Your task to perform on an android device: find photos in the google photos app Image 0: 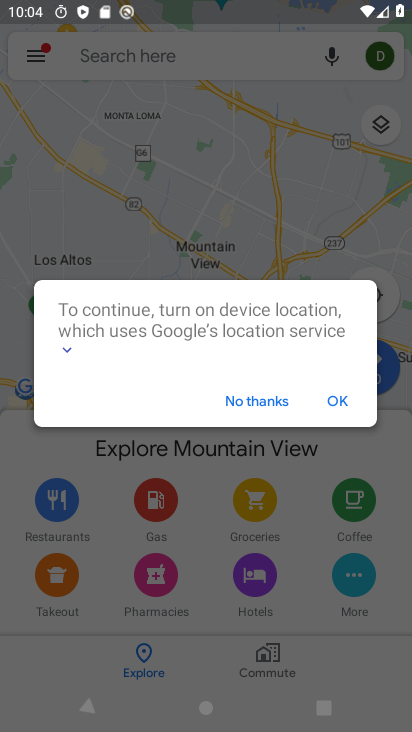
Step 0: press home button
Your task to perform on an android device: find photos in the google photos app Image 1: 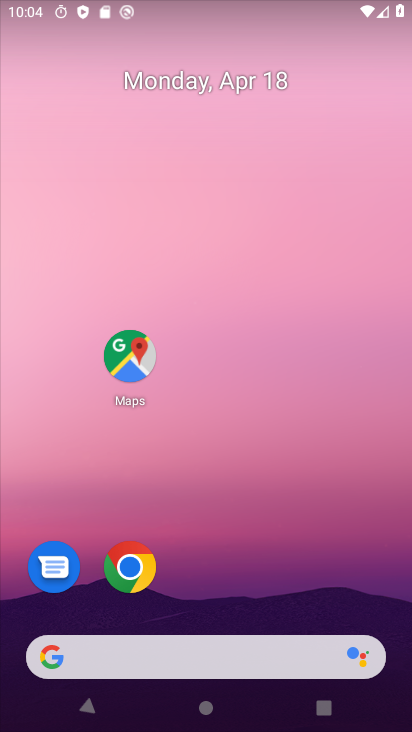
Step 1: drag from (284, 679) to (404, 319)
Your task to perform on an android device: find photos in the google photos app Image 2: 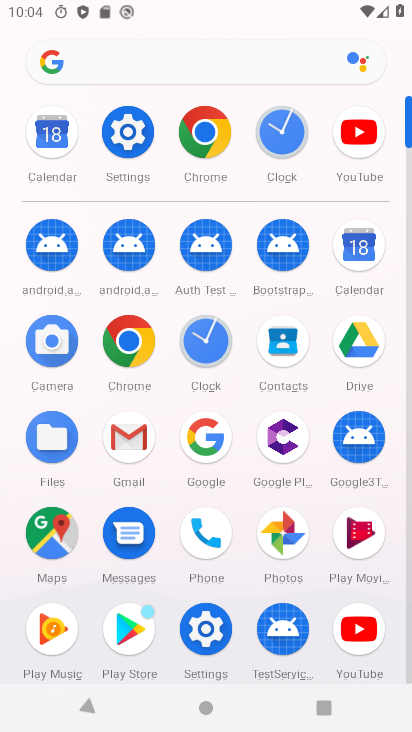
Step 2: click (262, 531)
Your task to perform on an android device: find photos in the google photos app Image 3: 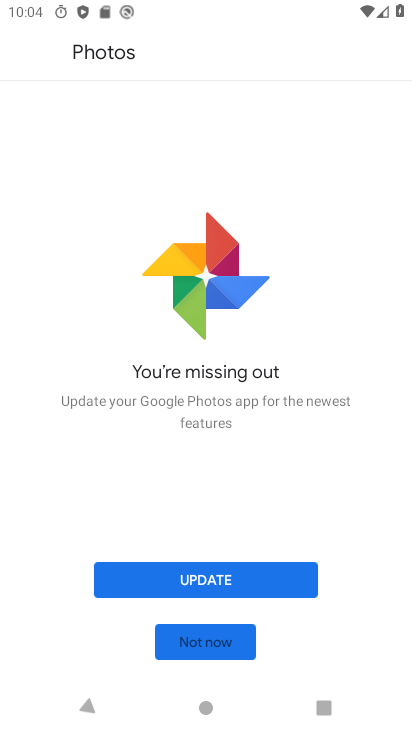
Step 3: click (223, 580)
Your task to perform on an android device: find photos in the google photos app Image 4: 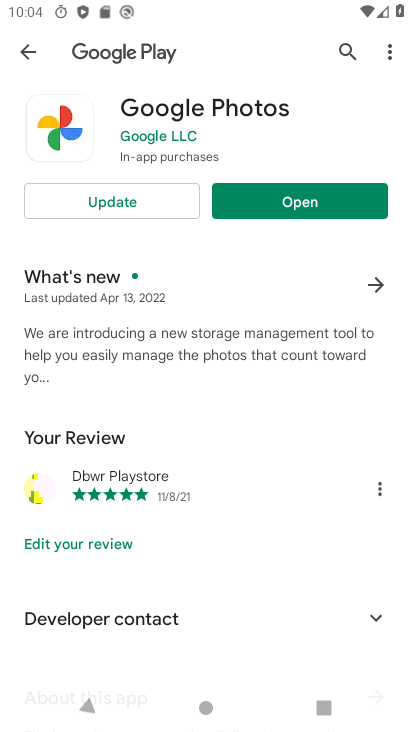
Step 4: click (292, 200)
Your task to perform on an android device: find photos in the google photos app Image 5: 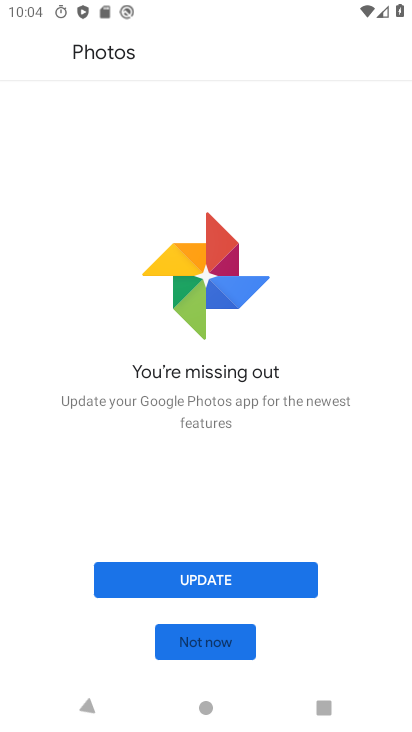
Step 5: click (208, 581)
Your task to perform on an android device: find photos in the google photos app Image 6: 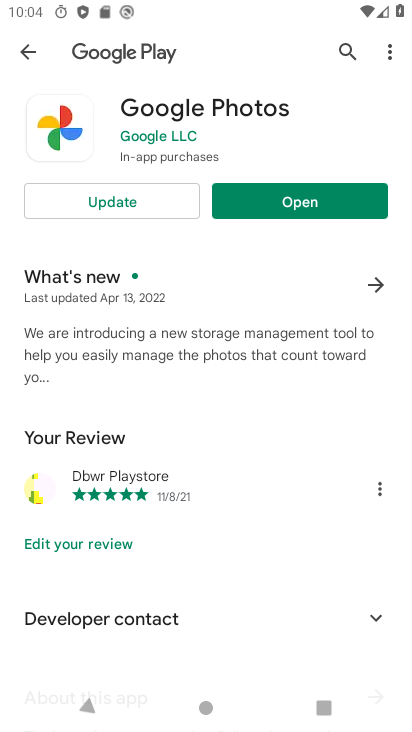
Step 6: click (125, 214)
Your task to perform on an android device: find photos in the google photos app Image 7: 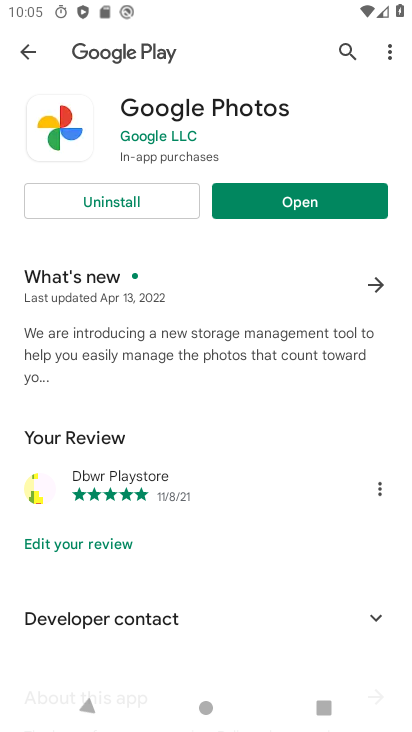
Step 7: click (298, 167)
Your task to perform on an android device: find photos in the google photos app Image 8: 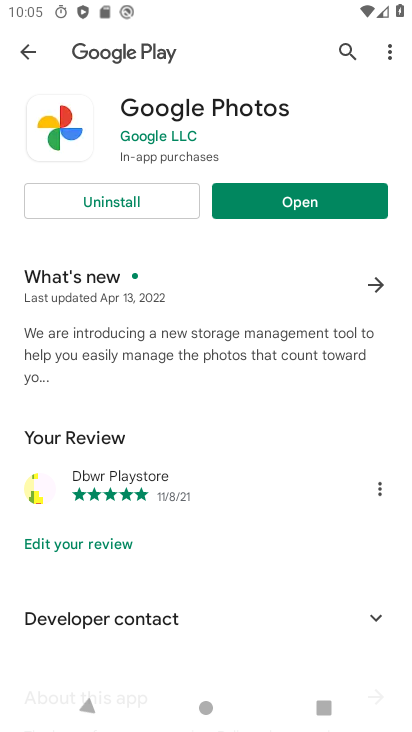
Step 8: click (254, 211)
Your task to perform on an android device: find photos in the google photos app Image 9: 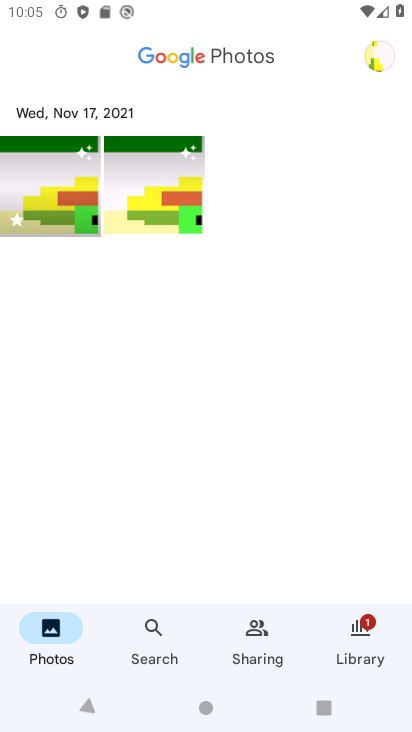
Step 9: task complete